Your task to perform on an android device: turn pop-ups off in chrome Image 0: 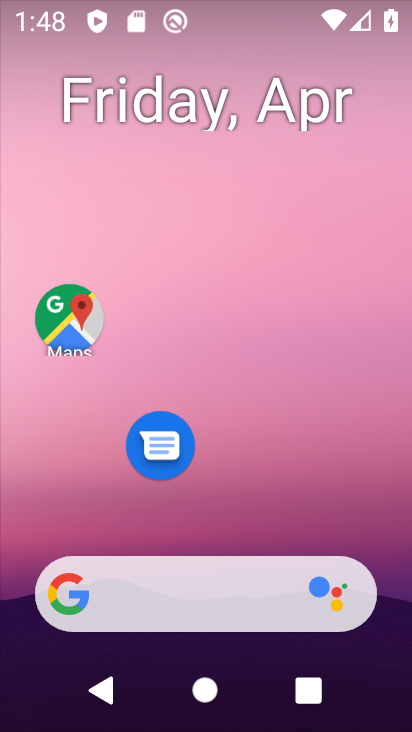
Step 0: drag from (266, 510) to (374, 122)
Your task to perform on an android device: turn pop-ups off in chrome Image 1: 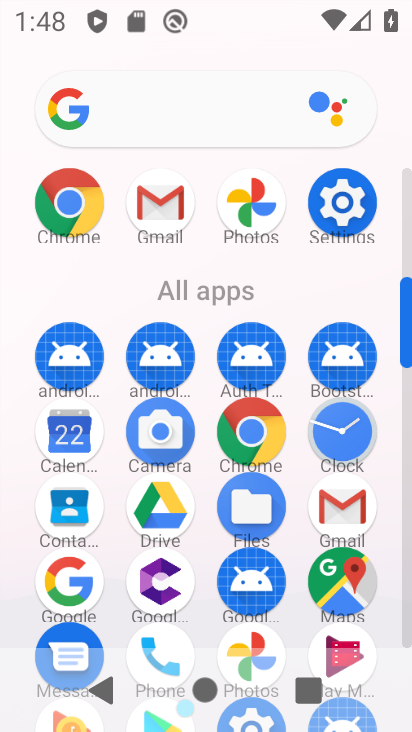
Step 1: click (50, 197)
Your task to perform on an android device: turn pop-ups off in chrome Image 2: 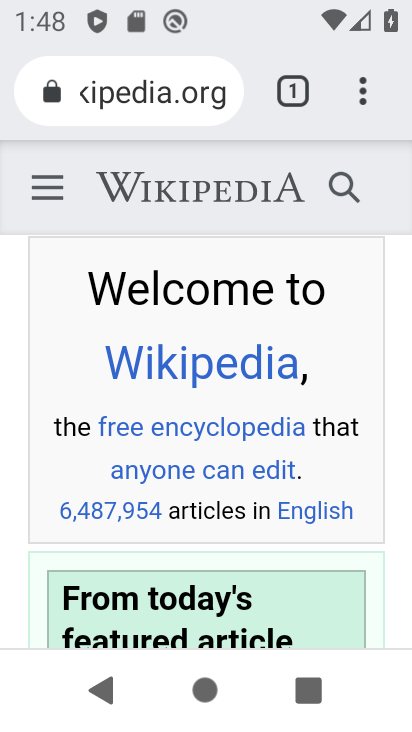
Step 2: click (368, 100)
Your task to perform on an android device: turn pop-ups off in chrome Image 3: 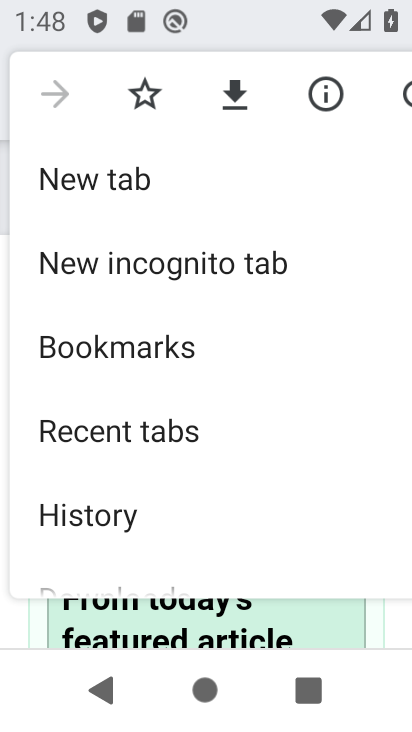
Step 3: drag from (159, 458) to (242, 234)
Your task to perform on an android device: turn pop-ups off in chrome Image 4: 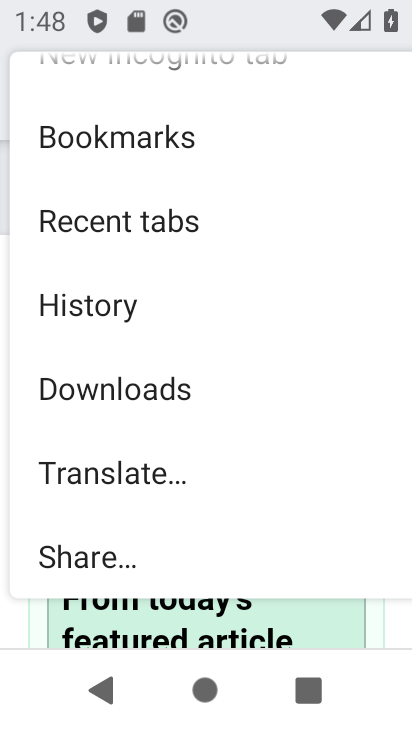
Step 4: drag from (201, 471) to (338, 159)
Your task to perform on an android device: turn pop-ups off in chrome Image 5: 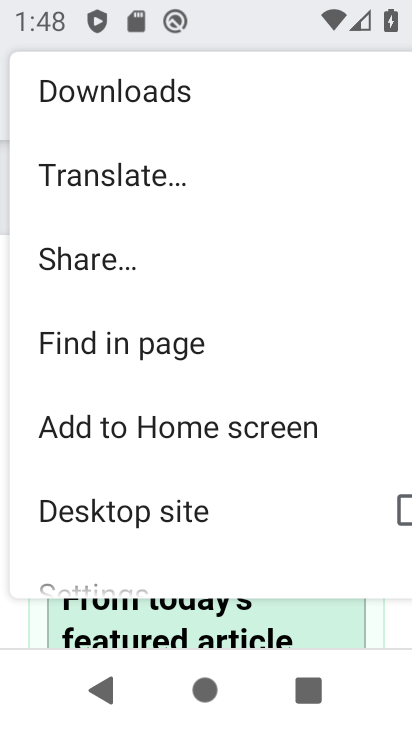
Step 5: drag from (260, 493) to (337, 261)
Your task to perform on an android device: turn pop-ups off in chrome Image 6: 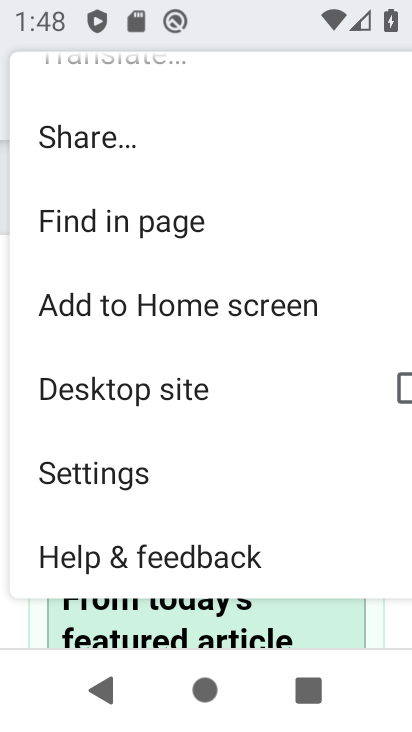
Step 6: click (211, 481)
Your task to perform on an android device: turn pop-ups off in chrome Image 7: 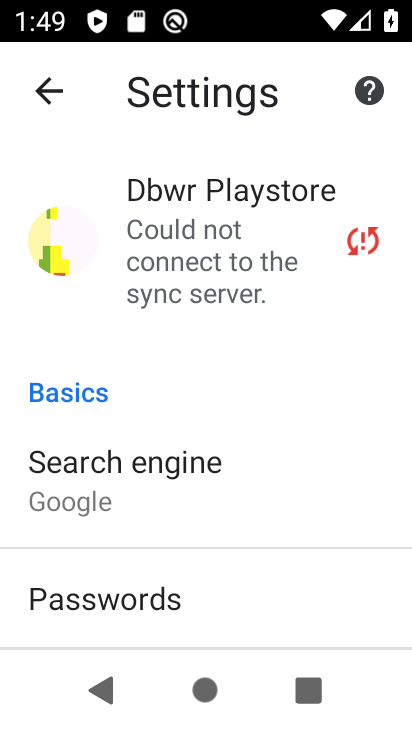
Step 7: drag from (207, 546) to (252, 390)
Your task to perform on an android device: turn pop-ups off in chrome Image 8: 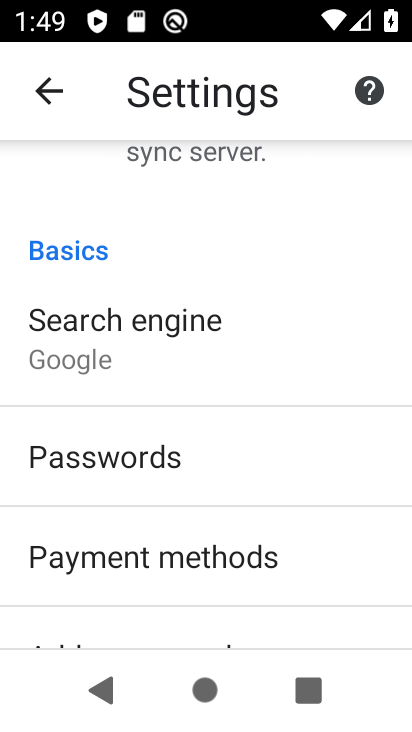
Step 8: drag from (256, 532) to (296, 371)
Your task to perform on an android device: turn pop-ups off in chrome Image 9: 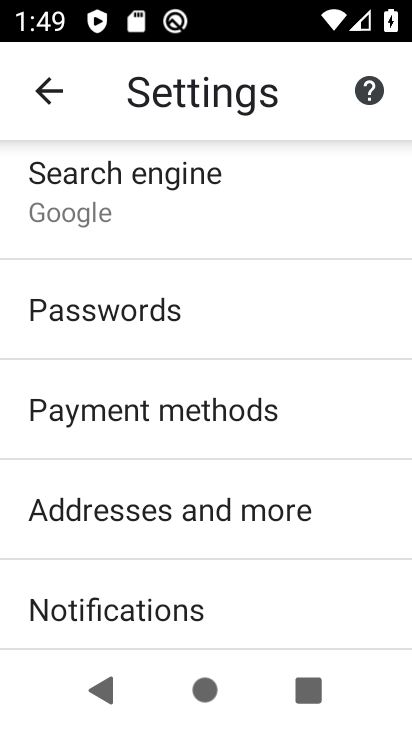
Step 9: drag from (286, 529) to (349, 321)
Your task to perform on an android device: turn pop-ups off in chrome Image 10: 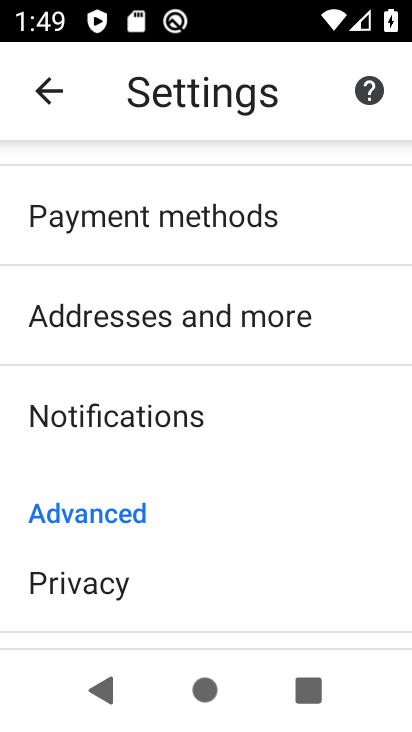
Step 10: drag from (273, 553) to (338, 302)
Your task to perform on an android device: turn pop-ups off in chrome Image 11: 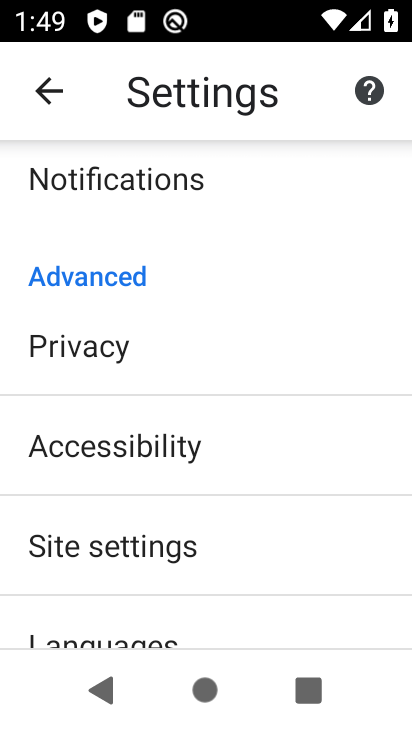
Step 11: click (276, 535)
Your task to perform on an android device: turn pop-ups off in chrome Image 12: 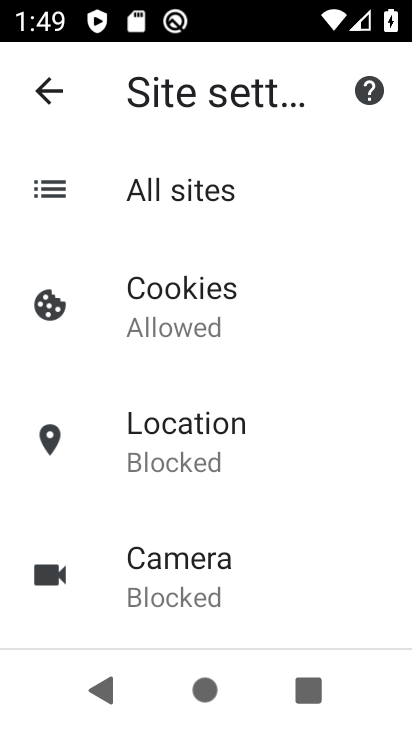
Step 12: drag from (265, 583) to (302, 451)
Your task to perform on an android device: turn pop-ups off in chrome Image 13: 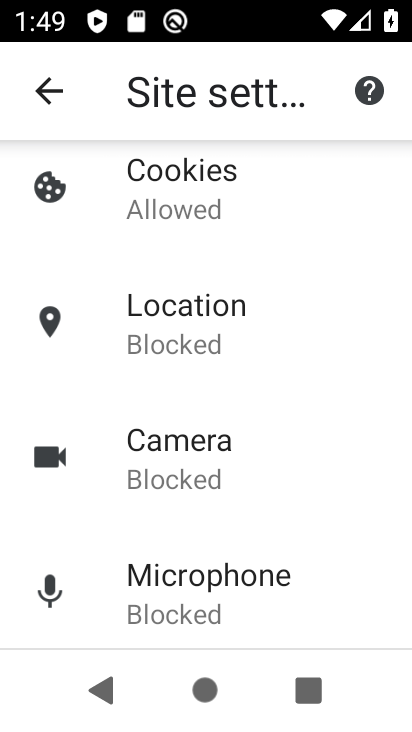
Step 13: drag from (288, 552) to (330, 431)
Your task to perform on an android device: turn pop-ups off in chrome Image 14: 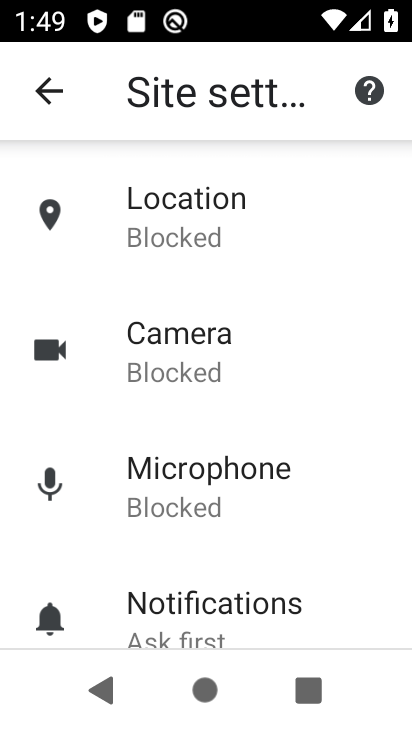
Step 14: drag from (303, 559) to (313, 463)
Your task to perform on an android device: turn pop-ups off in chrome Image 15: 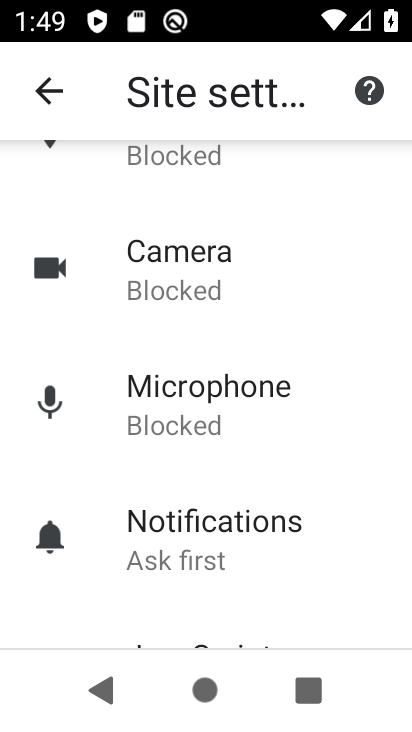
Step 15: drag from (314, 603) to (366, 475)
Your task to perform on an android device: turn pop-ups off in chrome Image 16: 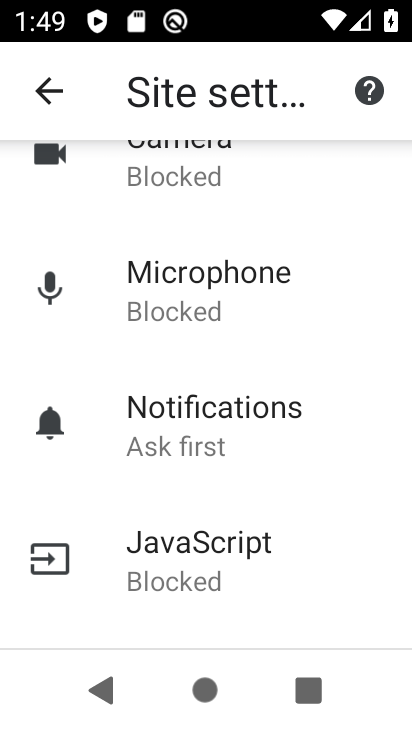
Step 16: drag from (289, 555) to (323, 458)
Your task to perform on an android device: turn pop-ups off in chrome Image 17: 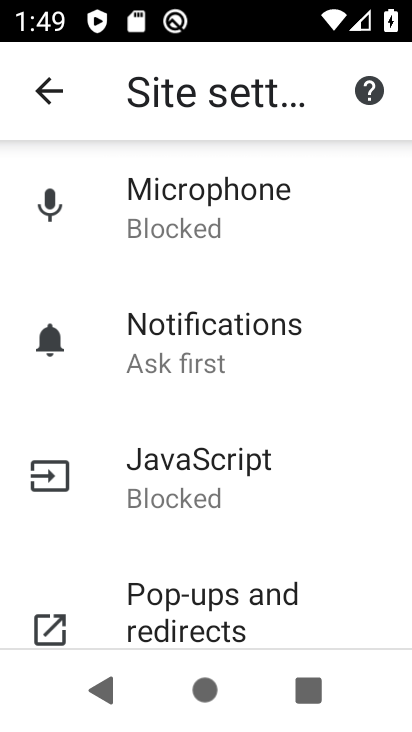
Step 17: click (215, 611)
Your task to perform on an android device: turn pop-ups off in chrome Image 18: 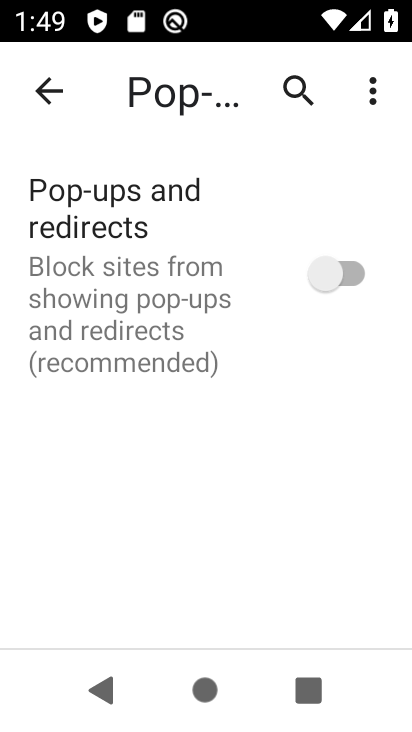
Step 18: task complete